Your task to perform on an android device: change the clock style Image 0: 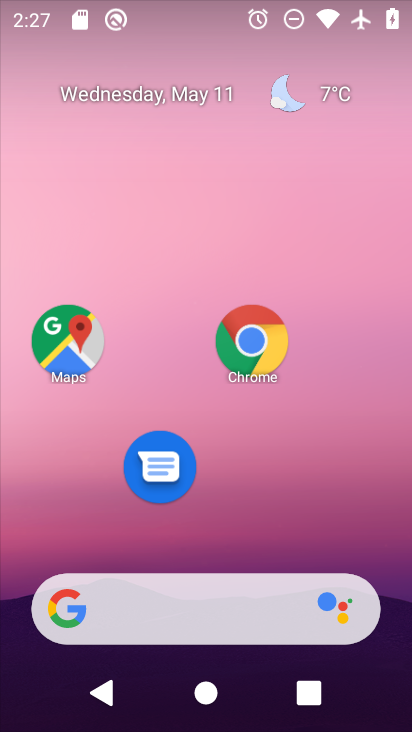
Step 0: drag from (161, 617) to (268, 186)
Your task to perform on an android device: change the clock style Image 1: 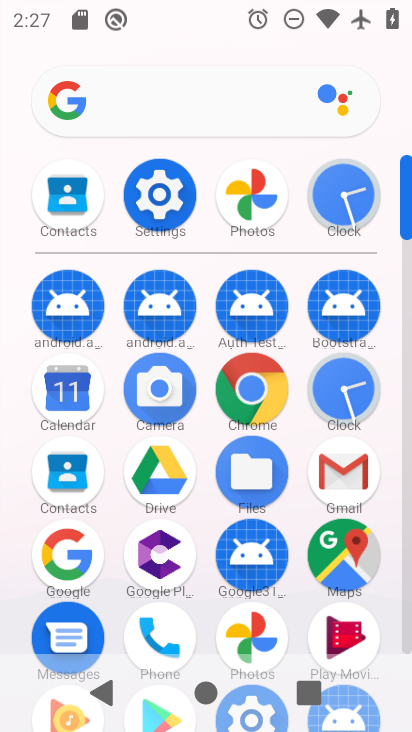
Step 1: click (342, 215)
Your task to perform on an android device: change the clock style Image 2: 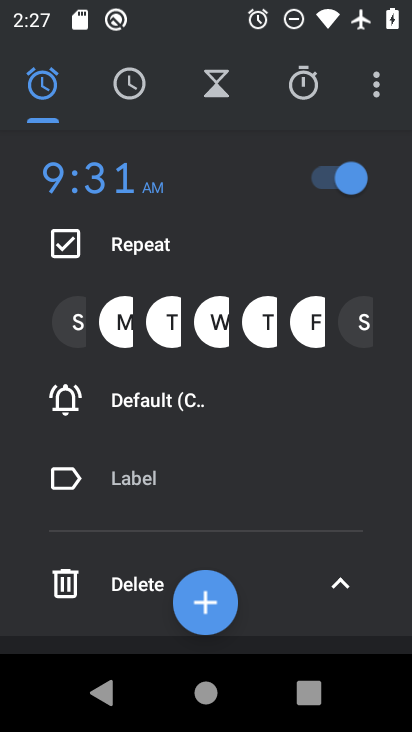
Step 2: click (375, 90)
Your task to perform on an android device: change the clock style Image 3: 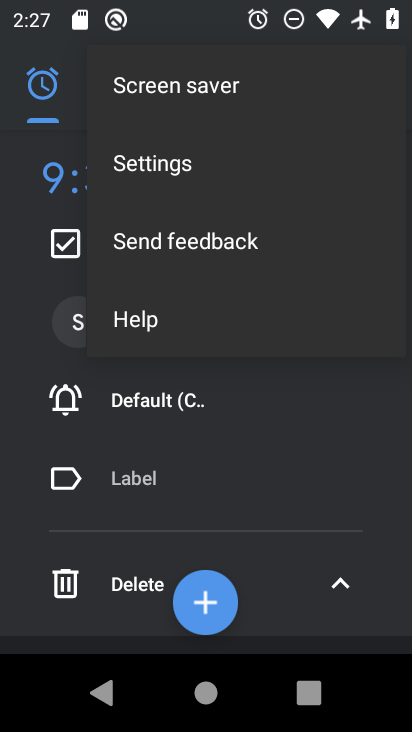
Step 3: click (186, 152)
Your task to perform on an android device: change the clock style Image 4: 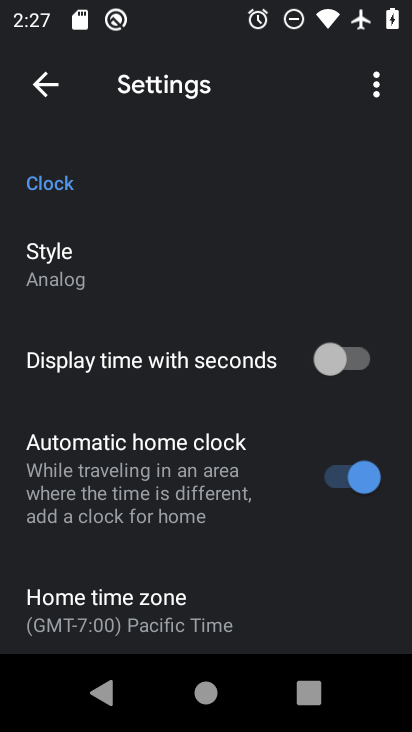
Step 4: click (69, 264)
Your task to perform on an android device: change the clock style Image 5: 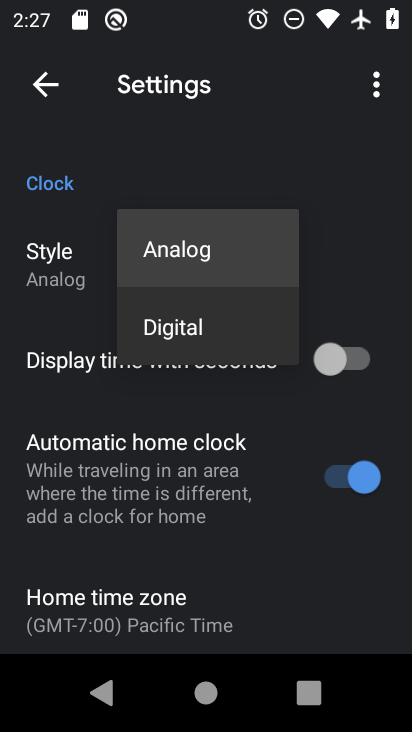
Step 5: click (167, 337)
Your task to perform on an android device: change the clock style Image 6: 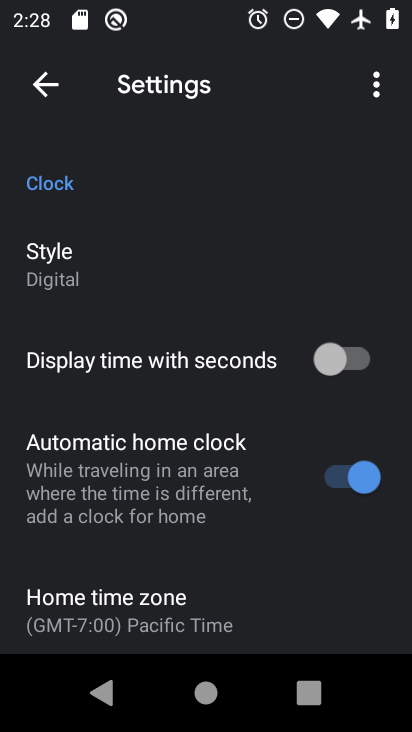
Step 6: task complete